Your task to perform on an android device: Go to network settings Image 0: 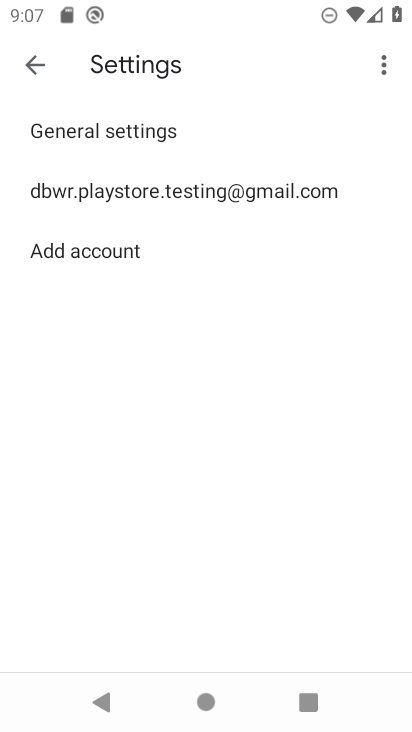
Step 0: press home button
Your task to perform on an android device: Go to network settings Image 1: 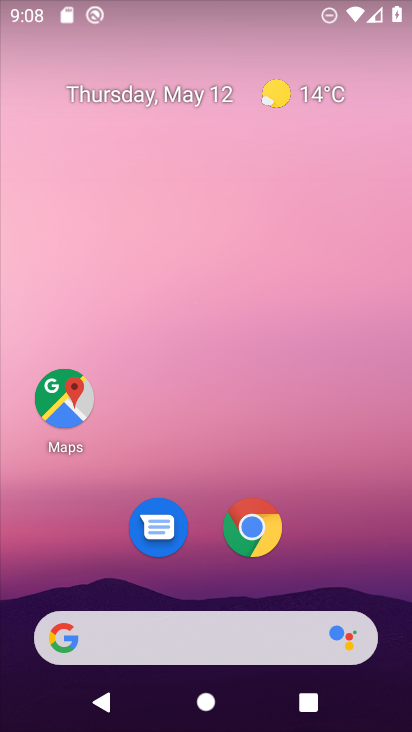
Step 1: drag from (212, 596) to (224, 84)
Your task to perform on an android device: Go to network settings Image 2: 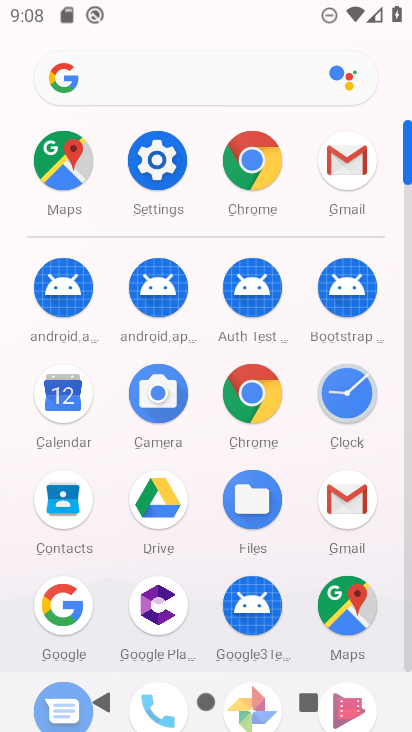
Step 2: click (171, 146)
Your task to perform on an android device: Go to network settings Image 3: 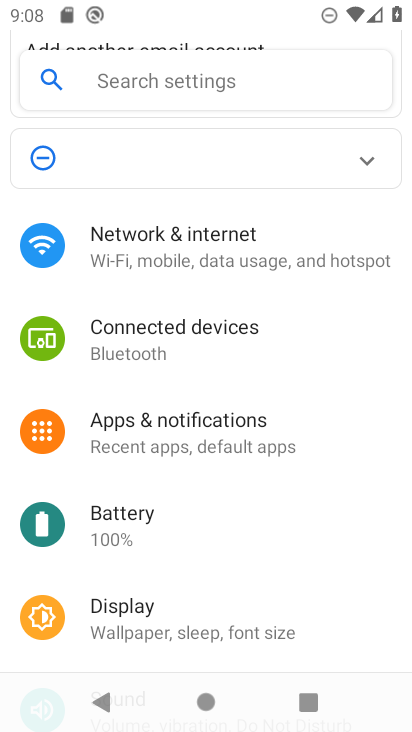
Step 3: click (187, 237)
Your task to perform on an android device: Go to network settings Image 4: 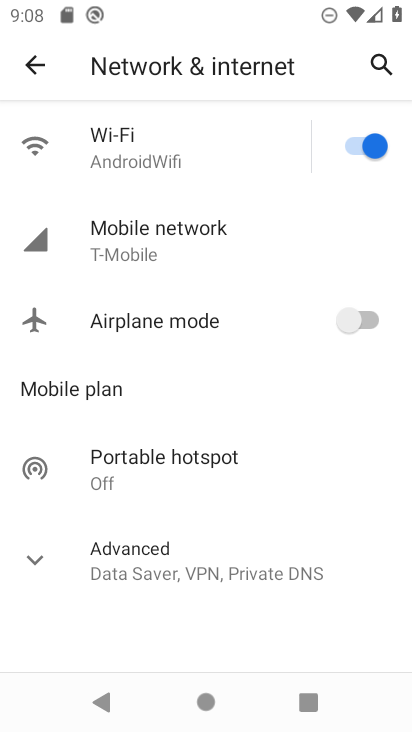
Step 4: click (192, 248)
Your task to perform on an android device: Go to network settings Image 5: 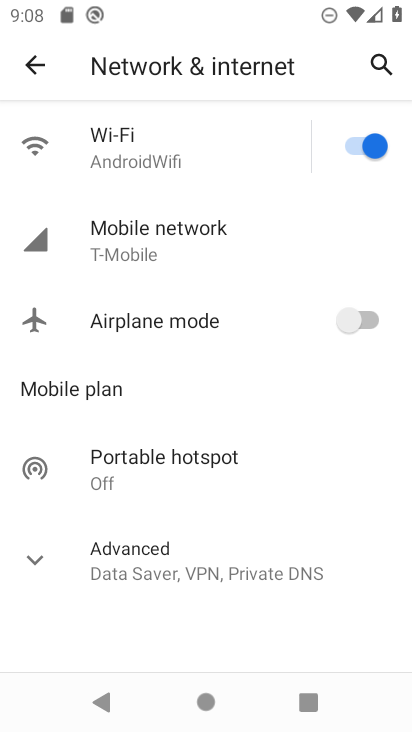
Step 5: task complete